Your task to perform on an android device: Open Maps and search for coffee Image 0: 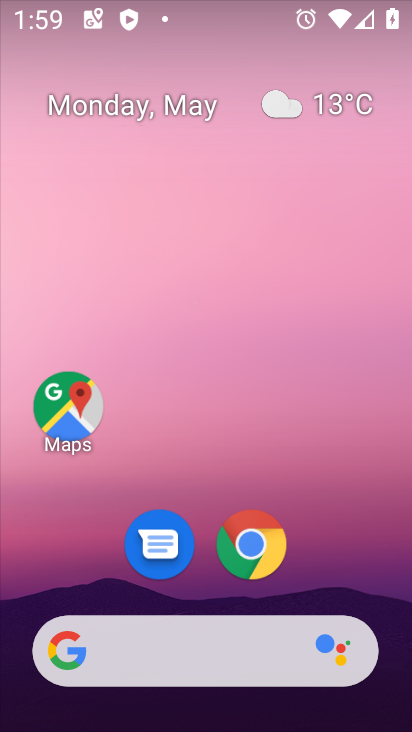
Step 0: click (68, 404)
Your task to perform on an android device: Open Maps and search for coffee Image 1: 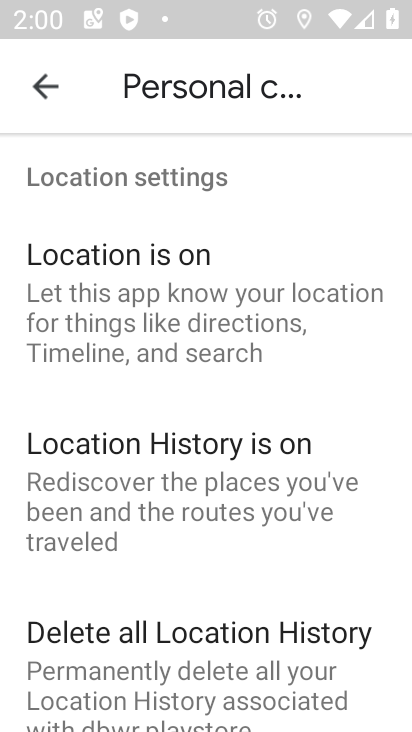
Step 1: press home button
Your task to perform on an android device: Open Maps and search for coffee Image 2: 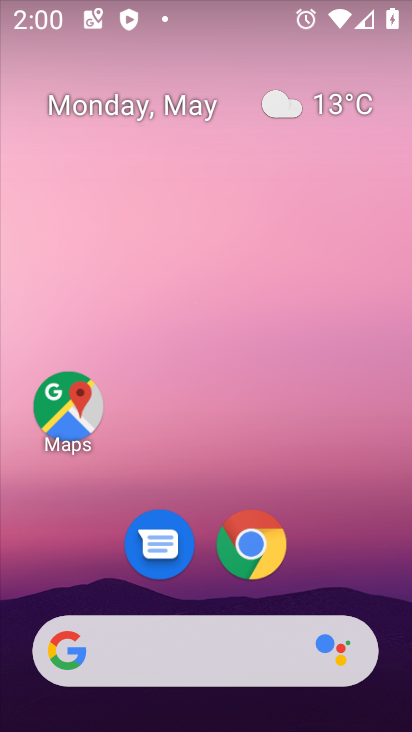
Step 2: click (73, 405)
Your task to perform on an android device: Open Maps and search for coffee Image 3: 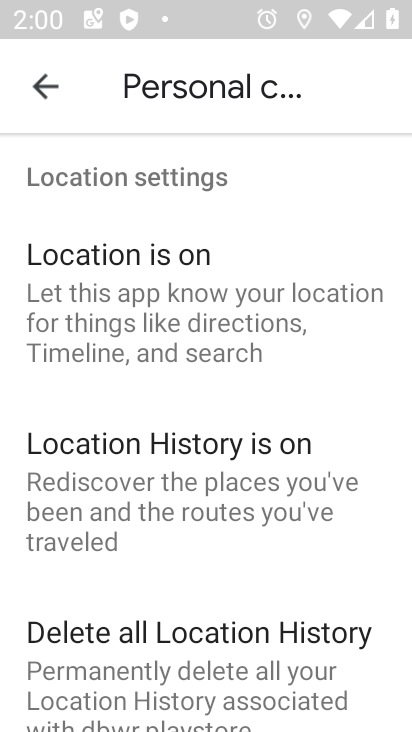
Step 3: press back button
Your task to perform on an android device: Open Maps and search for coffee Image 4: 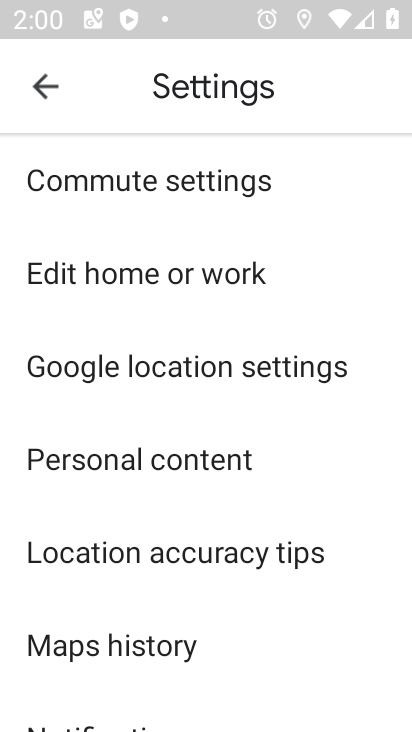
Step 4: press back button
Your task to perform on an android device: Open Maps and search for coffee Image 5: 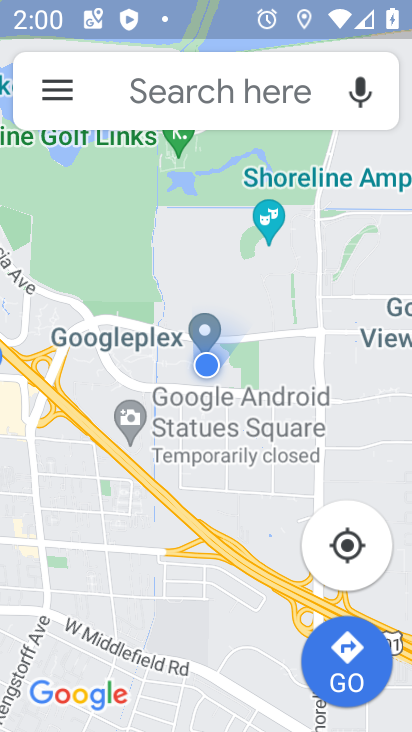
Step 5: click (146, 101)
Your task to perform on an android device: Open Maps and search for coffee Image 6: 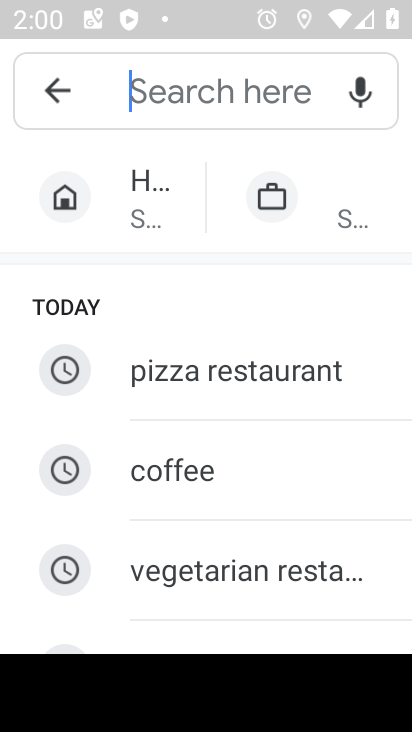
Step 6: type "coffee"
Your task to perform on an android device: Open Maps and search for coffee Image 7: 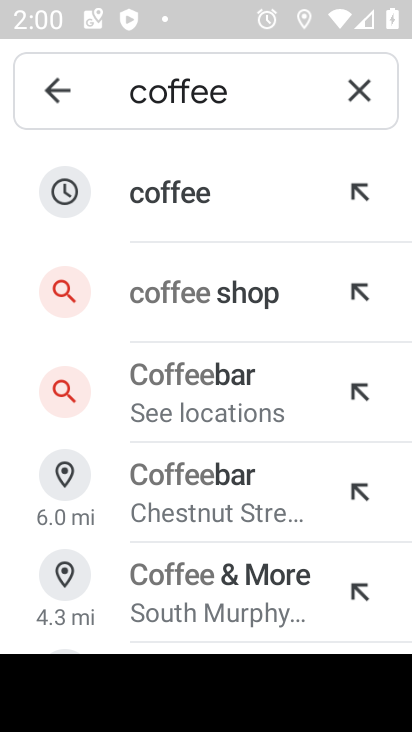
Step 7: click (197, 198)
Your task to perform on an android device: Open Maps and search for coffee Image 8: 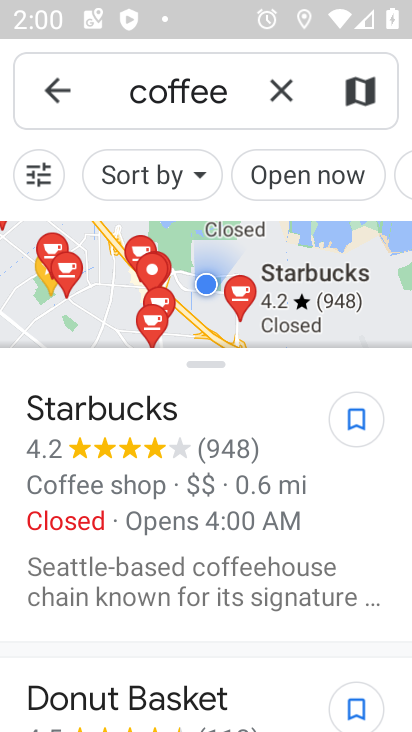
Step 8: task complete